Your task to perform on an android device: Open maps Image 0: 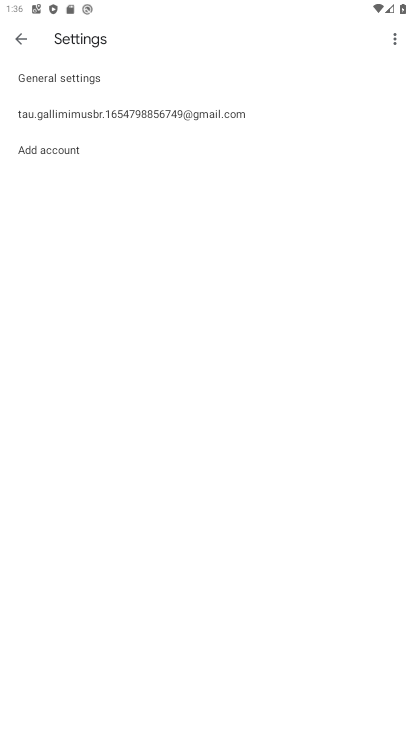
Step 0: press home button
Your task to perform on an android device: Open maps Image 1: 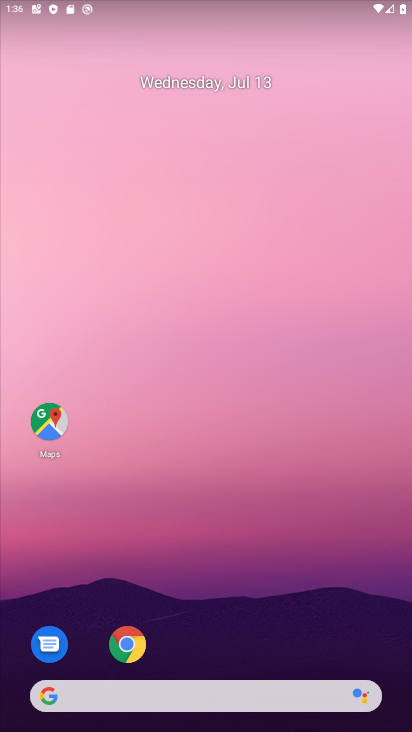
Step 1: click (43, 414)
Your task to perform on an android device: Open maps Image 2: 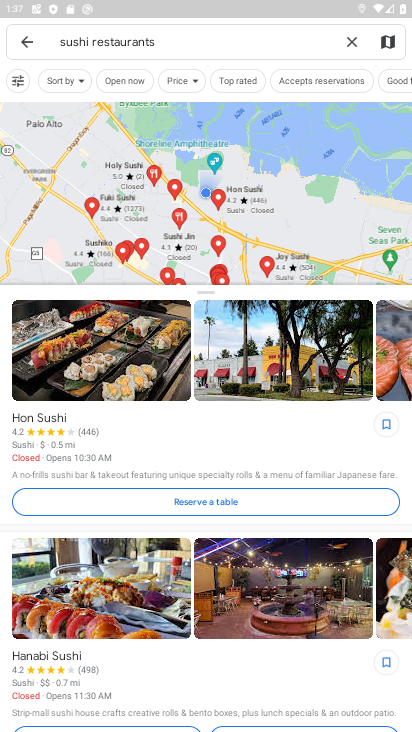
Step 2: task complete